Your task to perform on an android device: change text size in settings app Image 0: 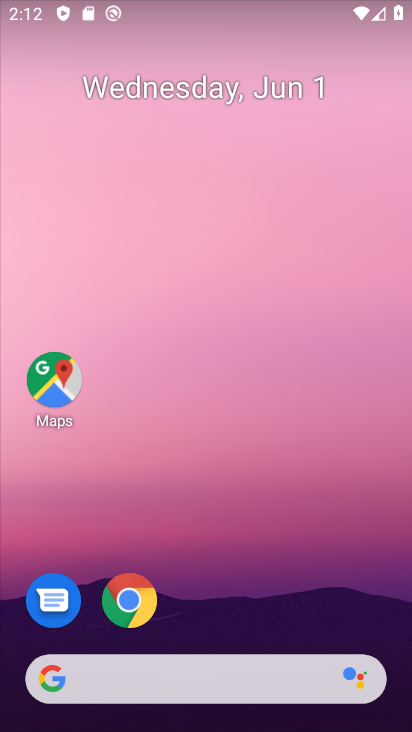
Step 0: drag from (240, 706) to (129, 148)
Your task to perform on an android device: change text size in settings app Image 1: 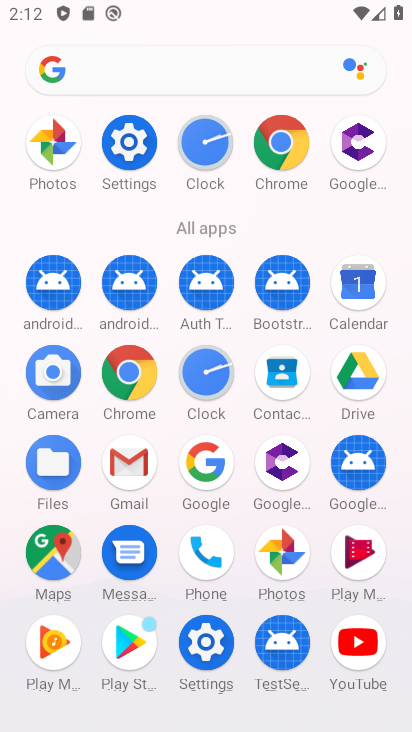
Step 1: click (202, 654)
Your task to perform on an android device: change text size in settings app Image 2: 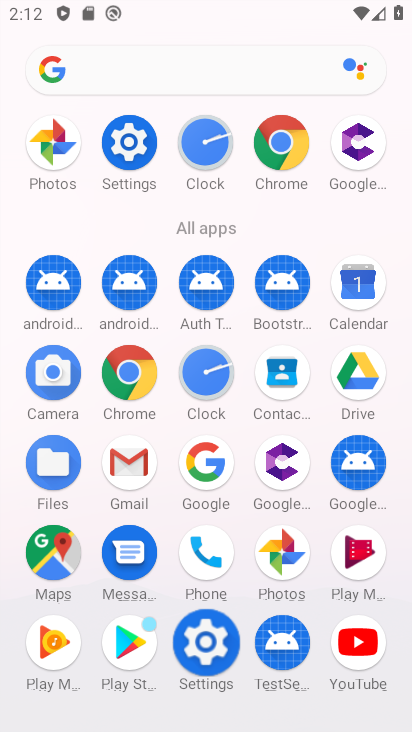
Step 2: click (203, 653)
Your task to perform on an android device: change text size in settings app Image 3: 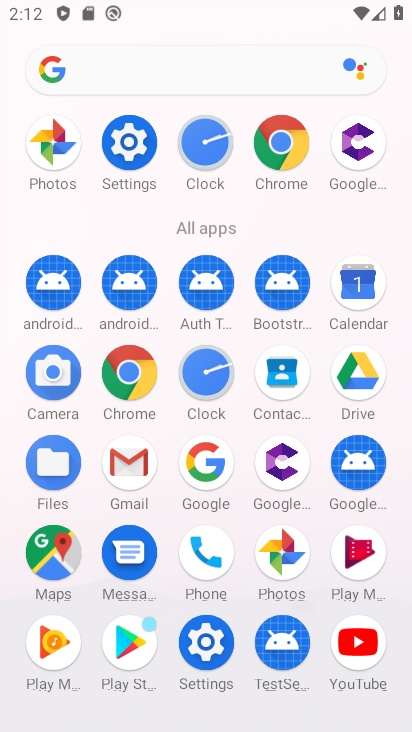
Step 3: click (205, 651)
Your task to perform on an android device: change text size in settings app Image 4: 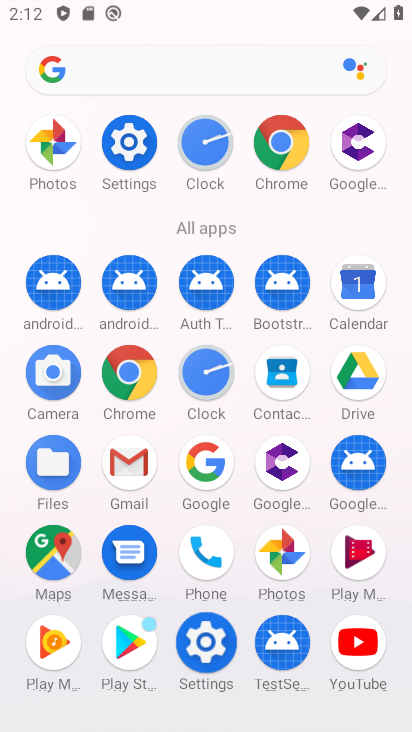
Step 4: click (206, 652)
Your task to perform on an android device: change text size in settings app Image 5: 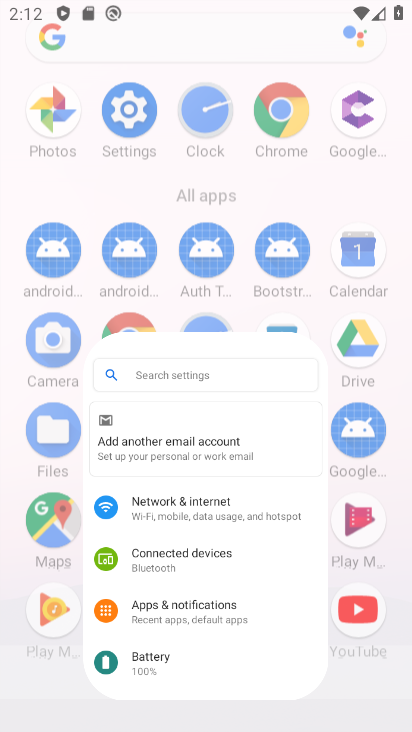
Step 5: click (208, 652)
Your task to perform on an android device: change text size in settings app Image 6: 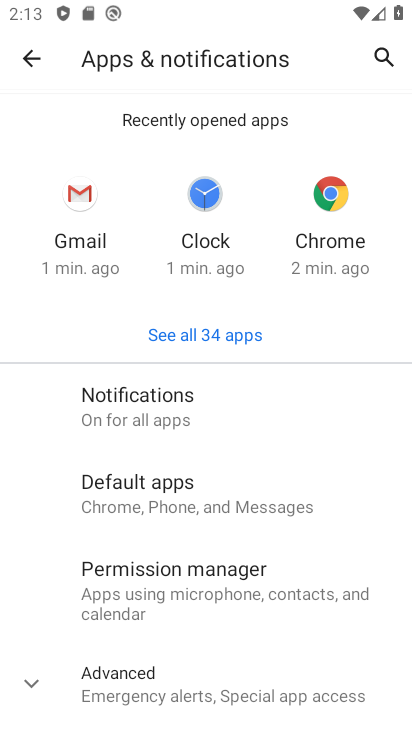
Step 6: click (28, 52)
Your task to perform on an android device: change text size in settings app Image 7: 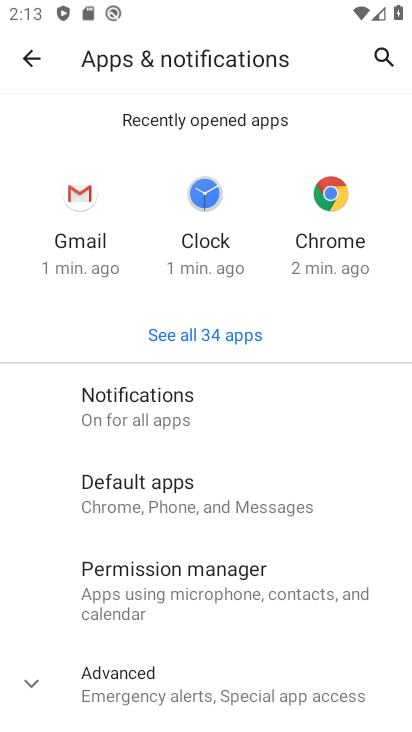
Step 7: click (29, 52)
Your task to perform on an android device: change text size in settings app Image 8: 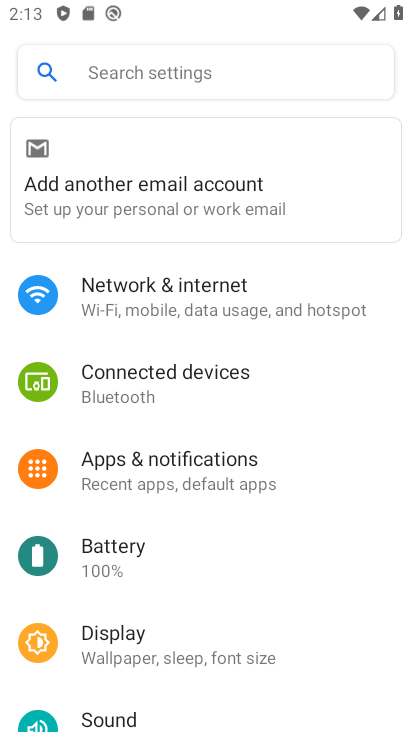
Step 8: click (105, 615)
Your task to perform on an android device: change text size in settings app Image 9: 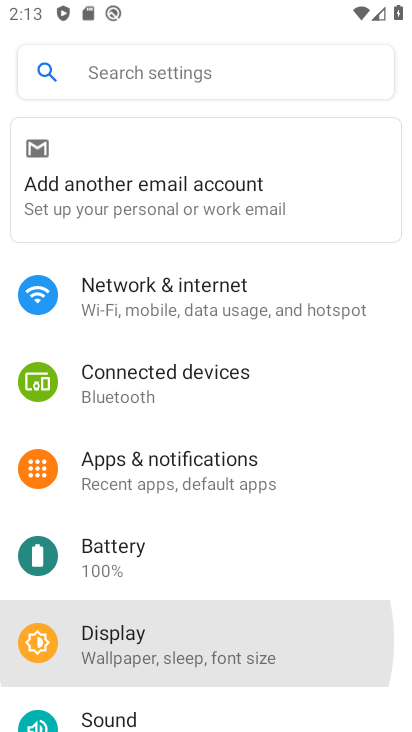
Step 9: click (105, 616)
Your task to perform on an android device: change text size in settings app Image 10: 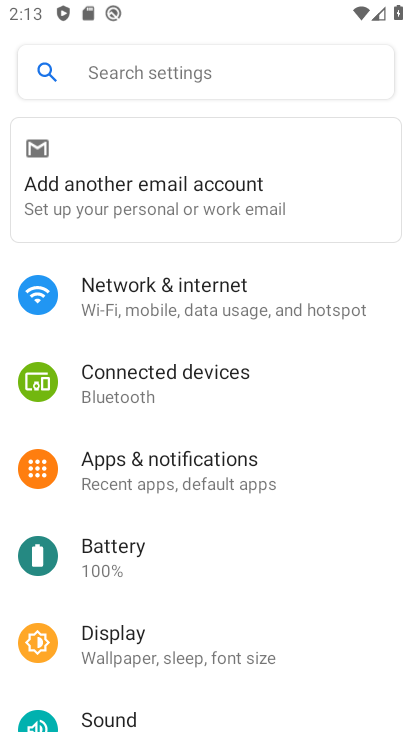
Step 10: click (105, 616)
Your task to perform on an android device: change text size in settings app Image 11: 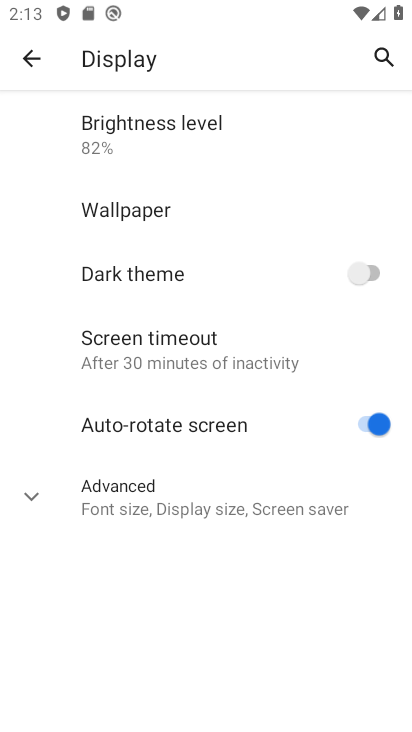
Step 11: click (125, 491)
Your task to perform on an android device: change text size in settings app Image 12: 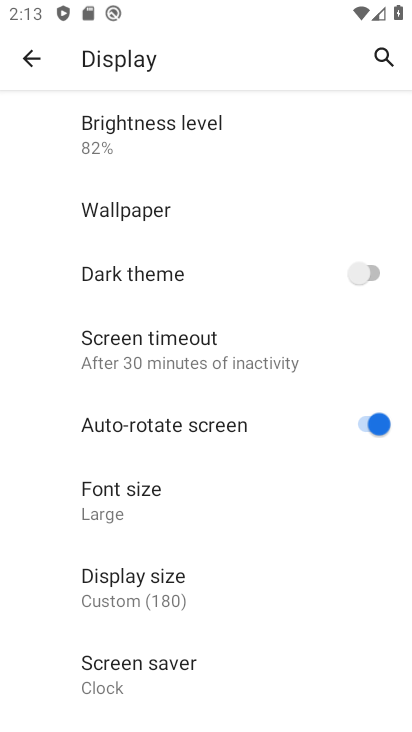
Step 12: click (96, 503)
Your task to perform on an android device: change text size in settings app Image 13: 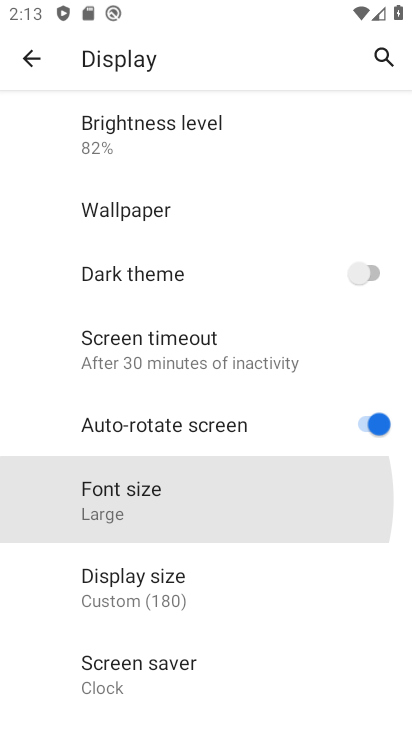
Step 13: click (96, 505)
Your task to perform on an android device: change text size in settings app Image 14: 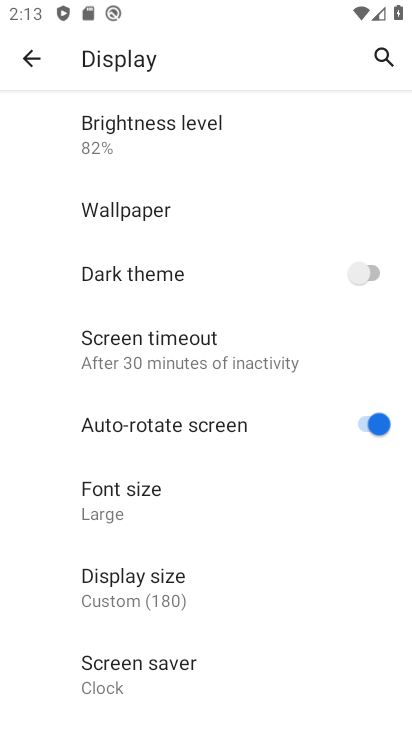
Step 14: click (96, 505)
Your task to perform on an android device: change text size in settings app Image 15: 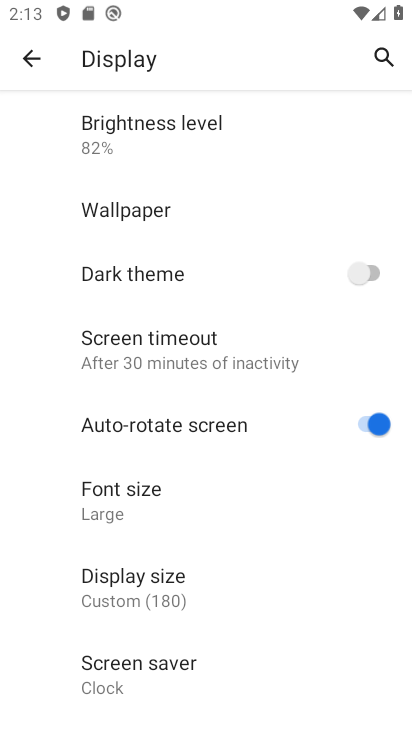
Step 15: click (96, 505)
Your task to perform on an android device: change text size in settings app Image 16: 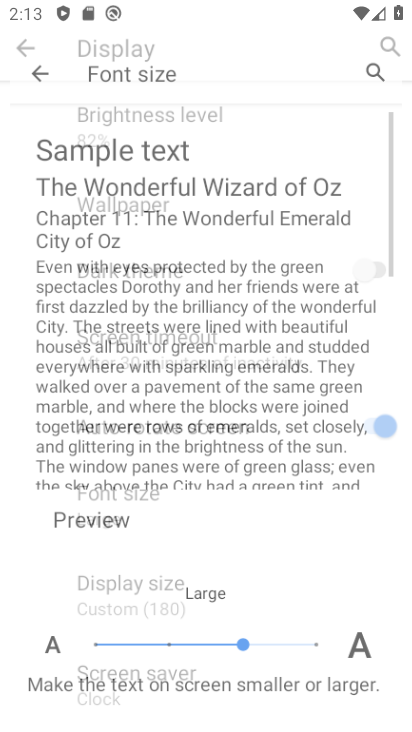
Step 16: click (96, 497)
Your task to perform on an android device: change text size in settings app Image 17: 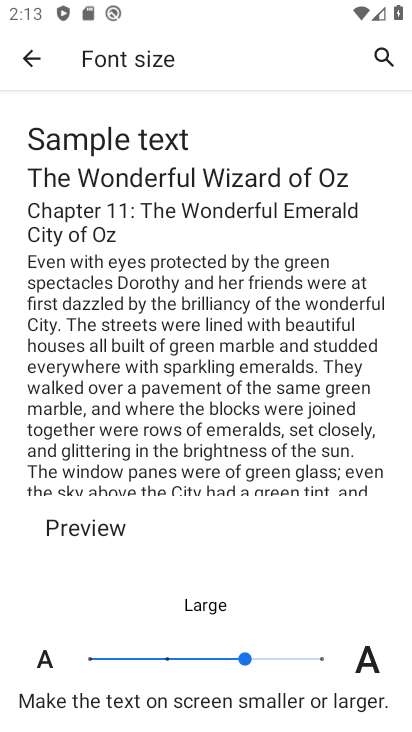
Step 17: click (169, 640)
Your task to perform on an android device: change text size in settings app Image 18: 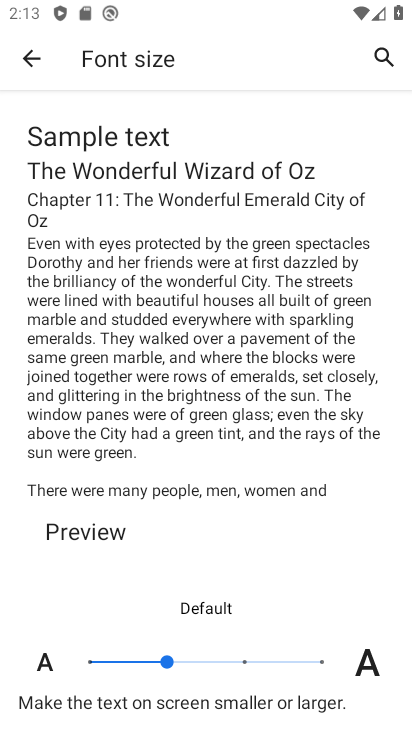
Step 18: task complete